Your task to perform on an android device: Search for sushi restaurants on Maps Image 0: 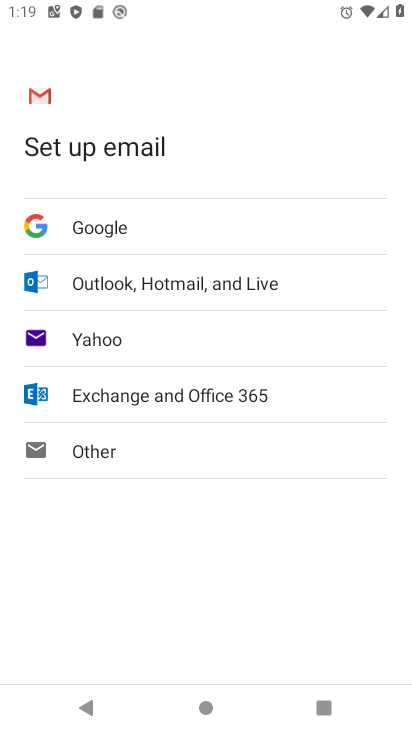
Step 0: press home button
Your task to perform on an android device: Search for sushi restaurants on Maps Image 1: 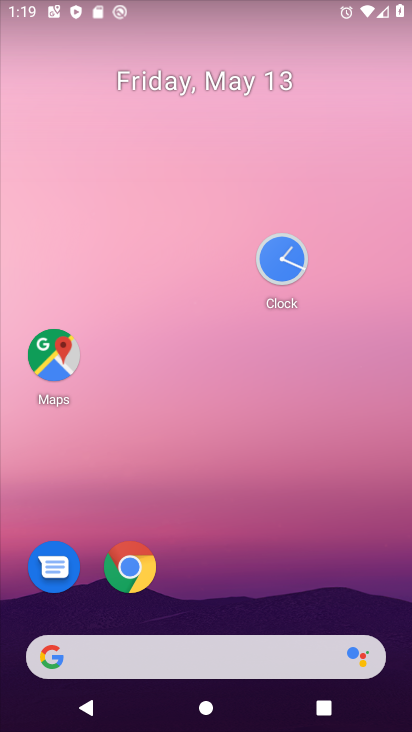
Step 1: click (58, 363)
Your task to perform on an android device: Search for sushi restaurants on Maps Image 2: 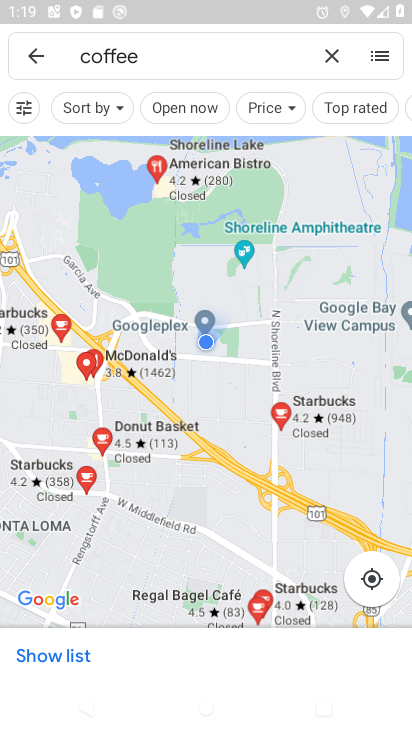
Step 2: click (336, 68)
Your task to perform on an android device: Search for sushi restaurants on Maps Image 3: 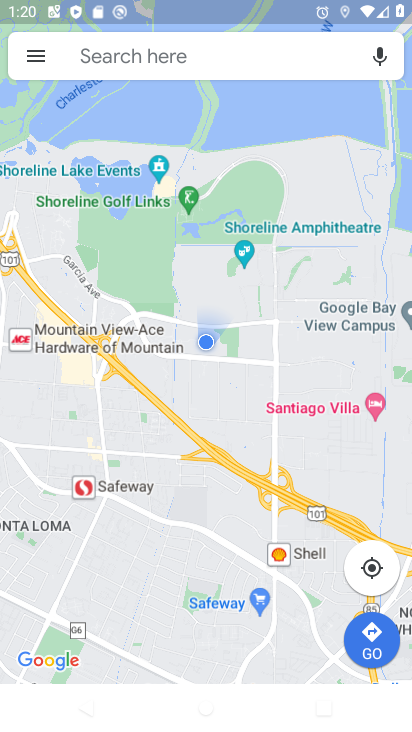
Step 3: click (234, 58)
Your task to perform on an android device: Search for sushi restaurants on Maps Image 4: 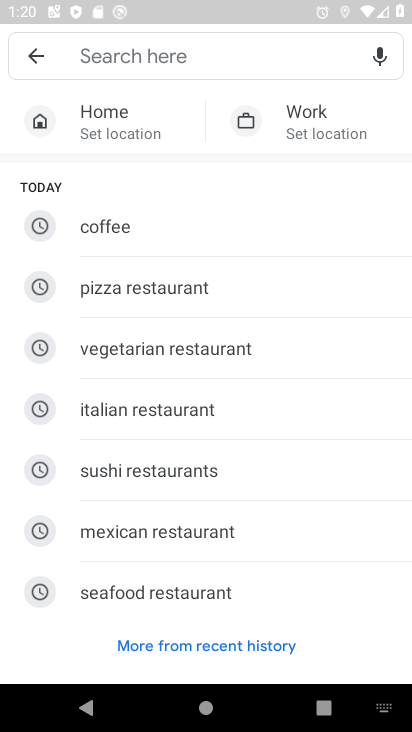
Step 4: click (142, 464)
Your task to perform on an android device: Search for sushi restaurants on Maps Image 5: 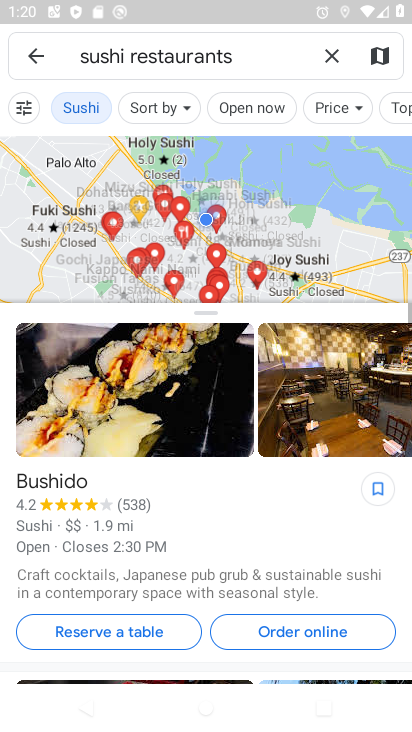
Step 5: task complete